Your task to perform on an android device: set default search engine in the chrome app Image 0: 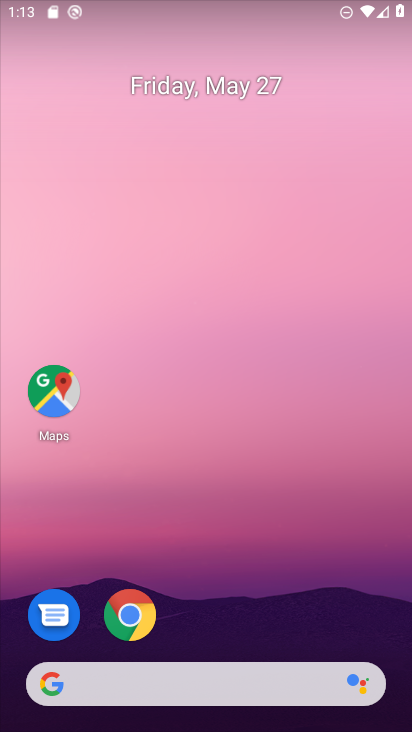
Step 0: drag from (256, 590) to (227, 168)
Your task to perform on an android device: set default search engine in the chrome app Image 1: 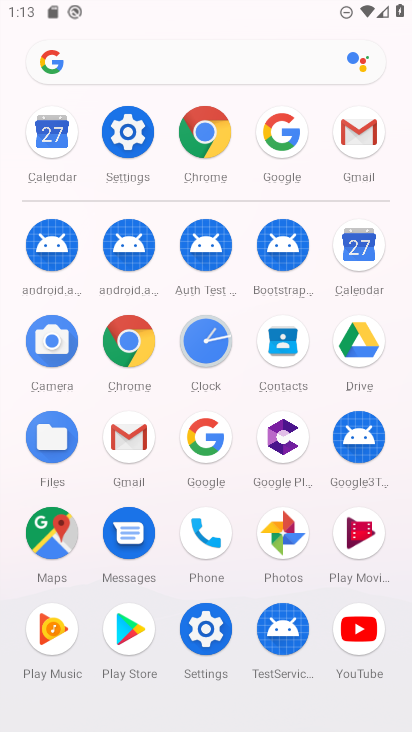
Step 1: click (140, 353)
Your task to perform on an android device: set default search engine in the chrome app Image 2: 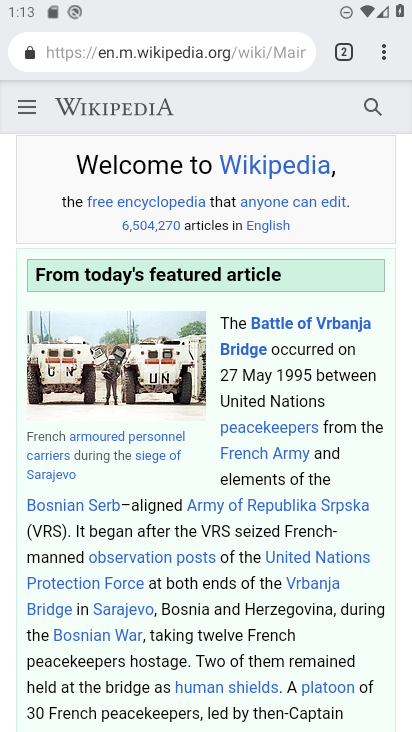
Step 2: click (382, 58)
Your task to perform on an android device: set default search engine in the chrome app Image 3: 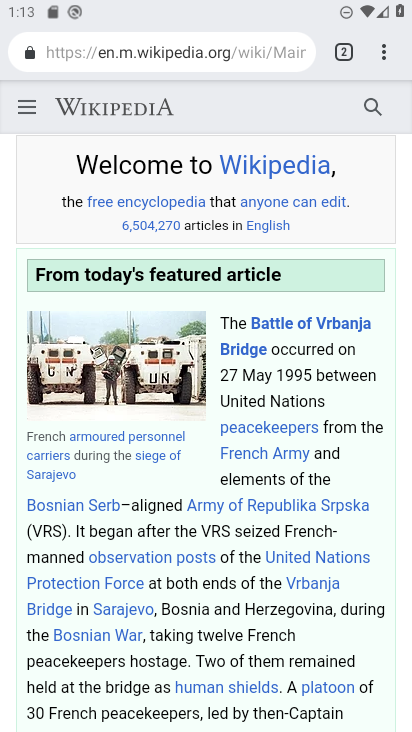
Step 3: click (383, 56)
Your task to perform on an android device: set default search engine in the chrome app Image 4: 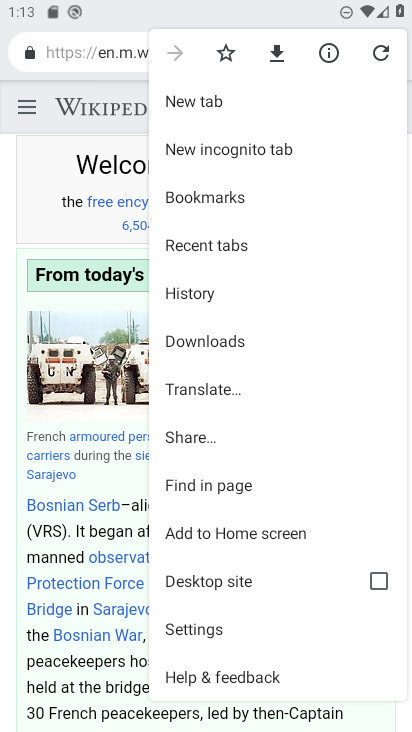
Step 4: drag from (246, 476) to (277, 208)
Your task to perform on an android device: set default search engine in the chrome app Image 5: 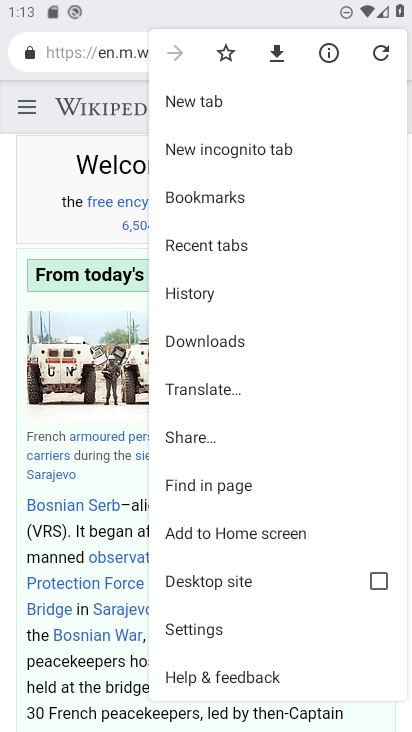
Step 5: click (242, 634)
Your task to perform on an android device: set default search engine in the chrome app Image 6: 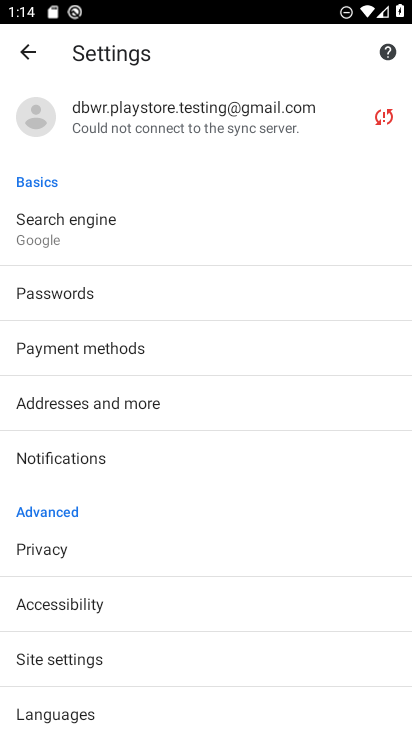
Step 6: click (238, 247)
Your task to perform on an android device: set default search engine in the chrome app Image 7: 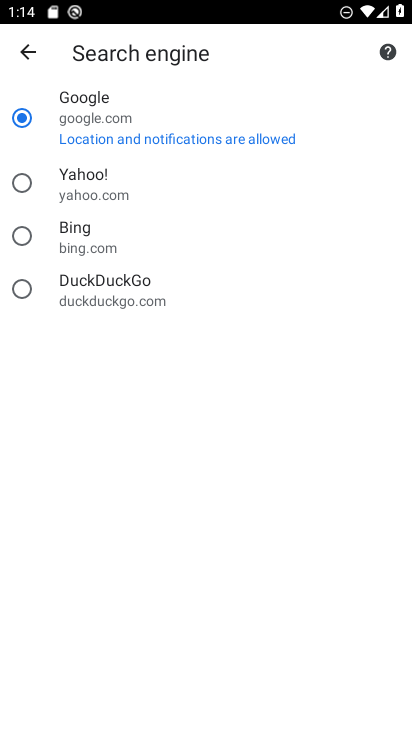
Step 7: click (126, 128)
Your task to perform on an android device: set default search engine in the chrome app Image 8: 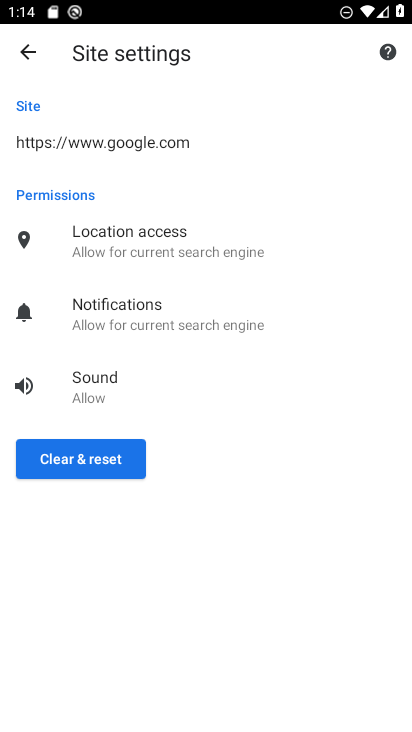
Step 8: click (50, 455)
Your task to perform on an android device: set default search engine in the chrome app Image 9: 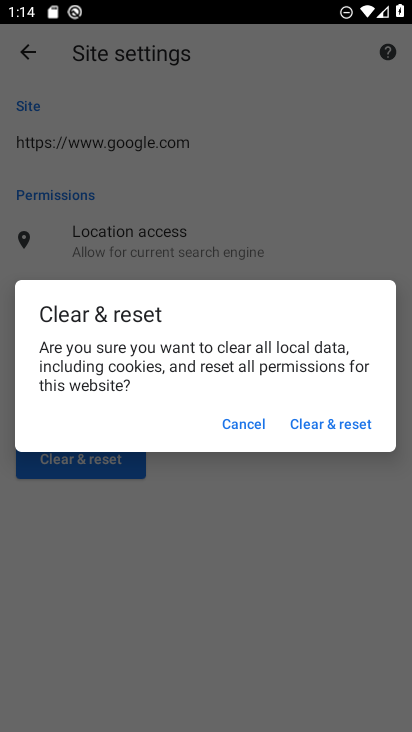
Step 9: click (340, 428)
Your task to perform on an android device: set default search engine in the chrome app Image 10: 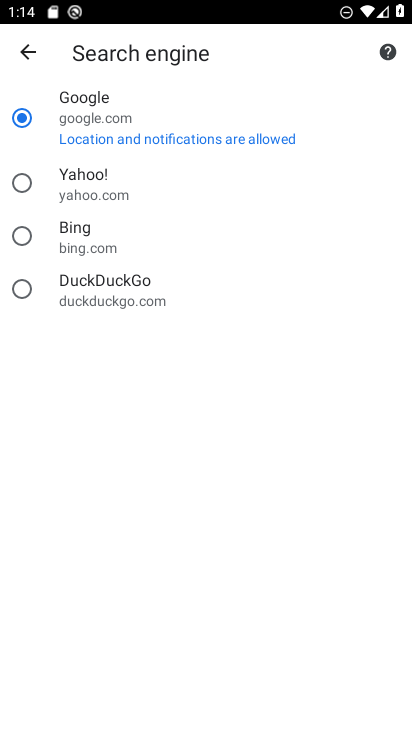
Step 10: task complete